Your task to perform on an android device: Open display settings Image 0: 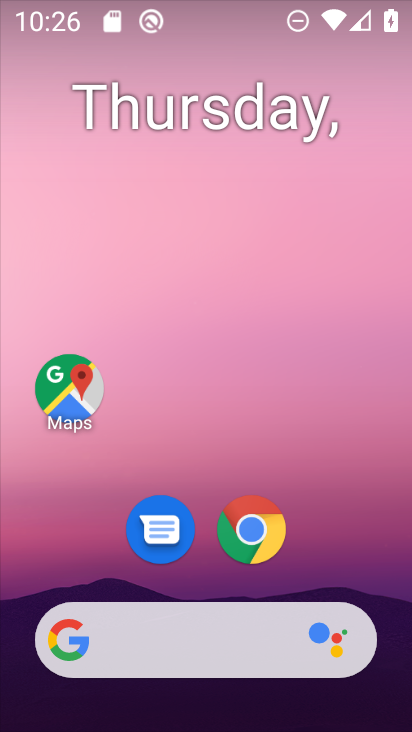
Step 0: drag from (135, 710) to (294, 21)
Your task to perform on an android device: Open display settings Image 1: 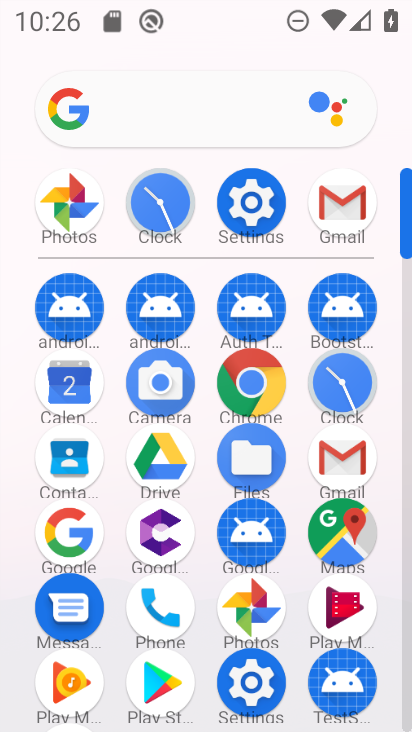
Step 1: click (232, 214)
Your task to perform on an android device: Open display settings Image 2: 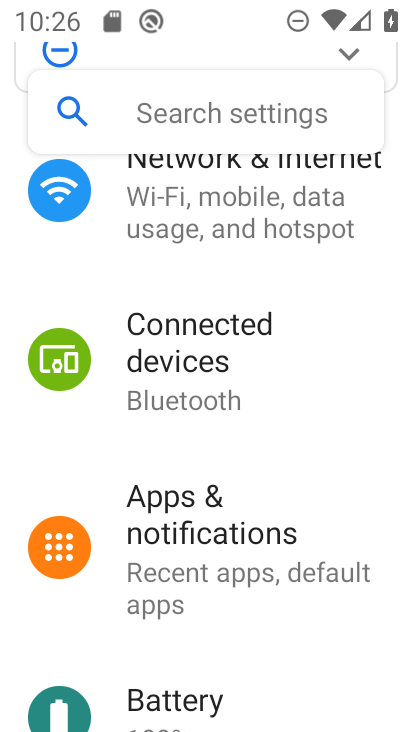
Step 2: drag from (270, 586) to (276, 78)
Your task to perform on an android device: Open display settings Image 3: 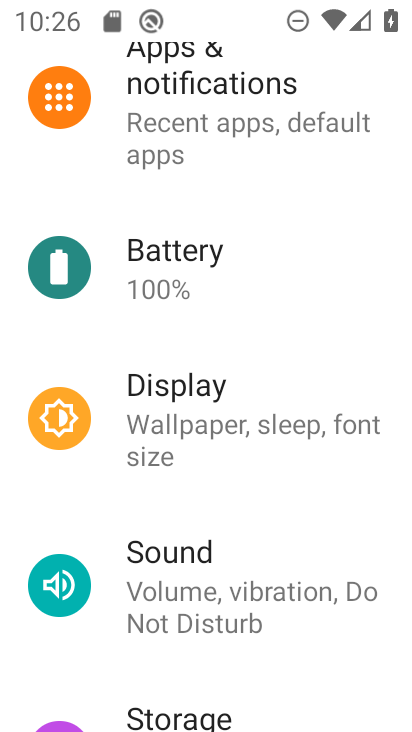
Step 3: click (240, 413)
Your task to perform on an android device: Open display settings Image 4: 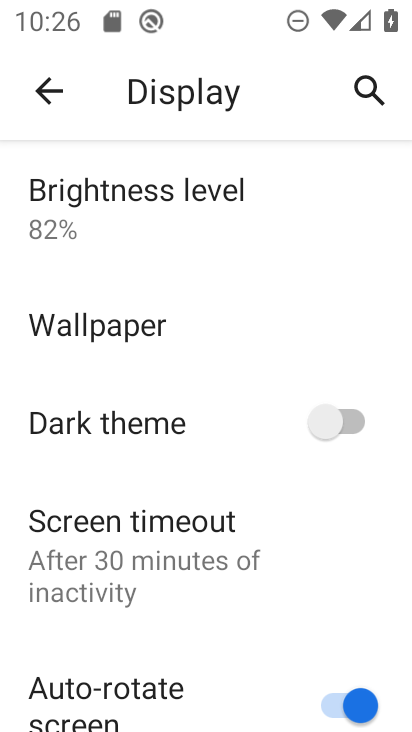
Step 4: task complete